Your task to perform on an android device: change the clock display to show seconds Image 0: 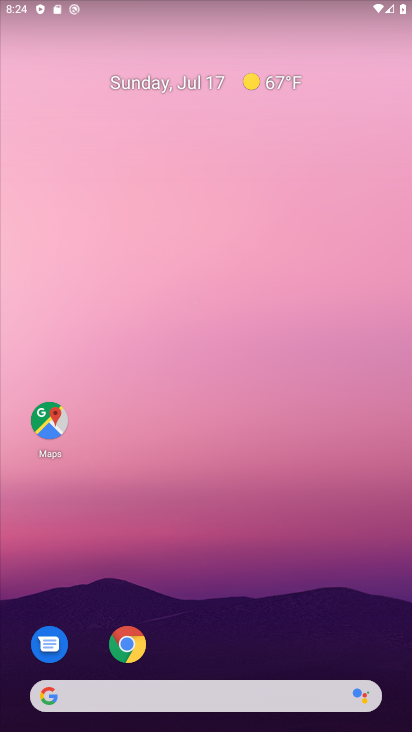
Step 0: drag from (282, 599) to (176, 1)
Your task to perform on an android device: change the clock display to show seconds Image 1: 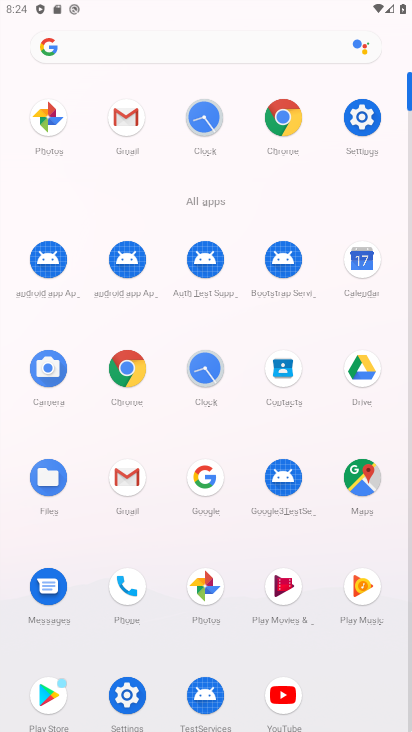
Step 1: click (208, 117)
Your task to perform on an android device: change the clock display to show seconds Image 2: 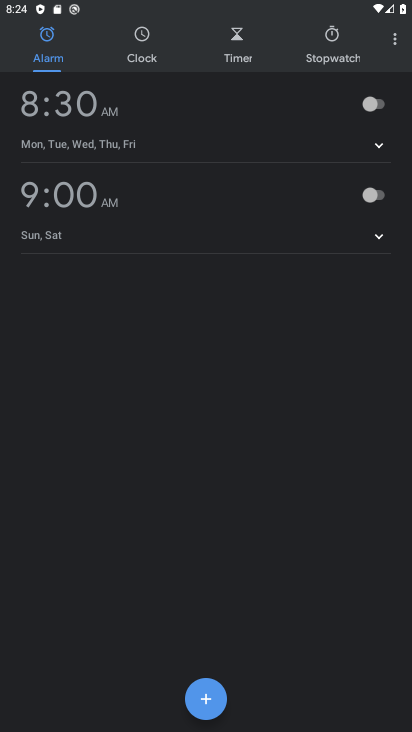
Step 2: click (396, 41)
Your task to perform on an android device: change the clock display to show seconds Image 3: 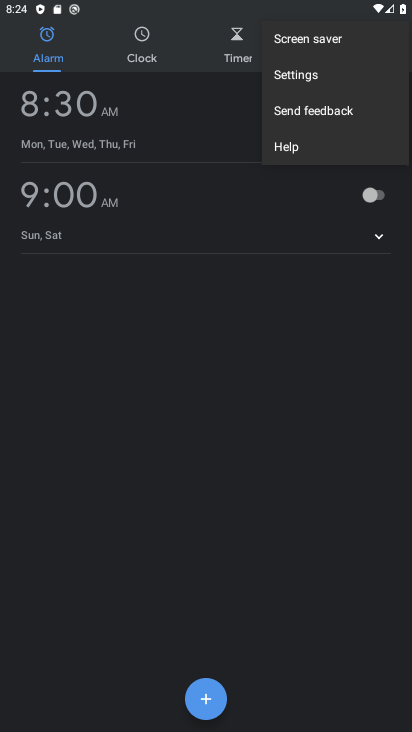
Step 3: click (295, 71)
Your task to perform on an android device: change the clock display to show seconds Image 4: 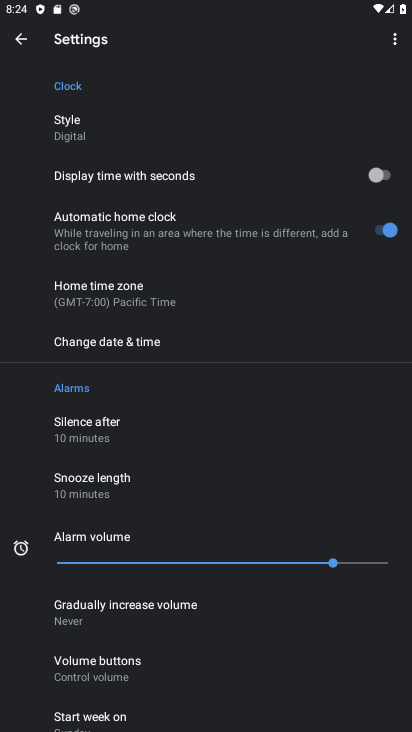
Step 4: click (380, 177)
Your task to perform on an android device: change the clock display to show seconds Image 5: 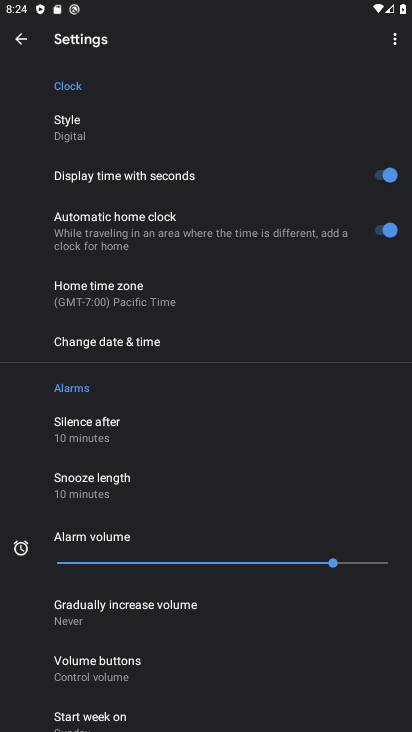
Step 5: task complete